Your task to perform on an android device: Clear the cart on amazon.com. Search for usb-a on amazon.com, select the first entry, add it to the cart, then select checkout. Image 0: 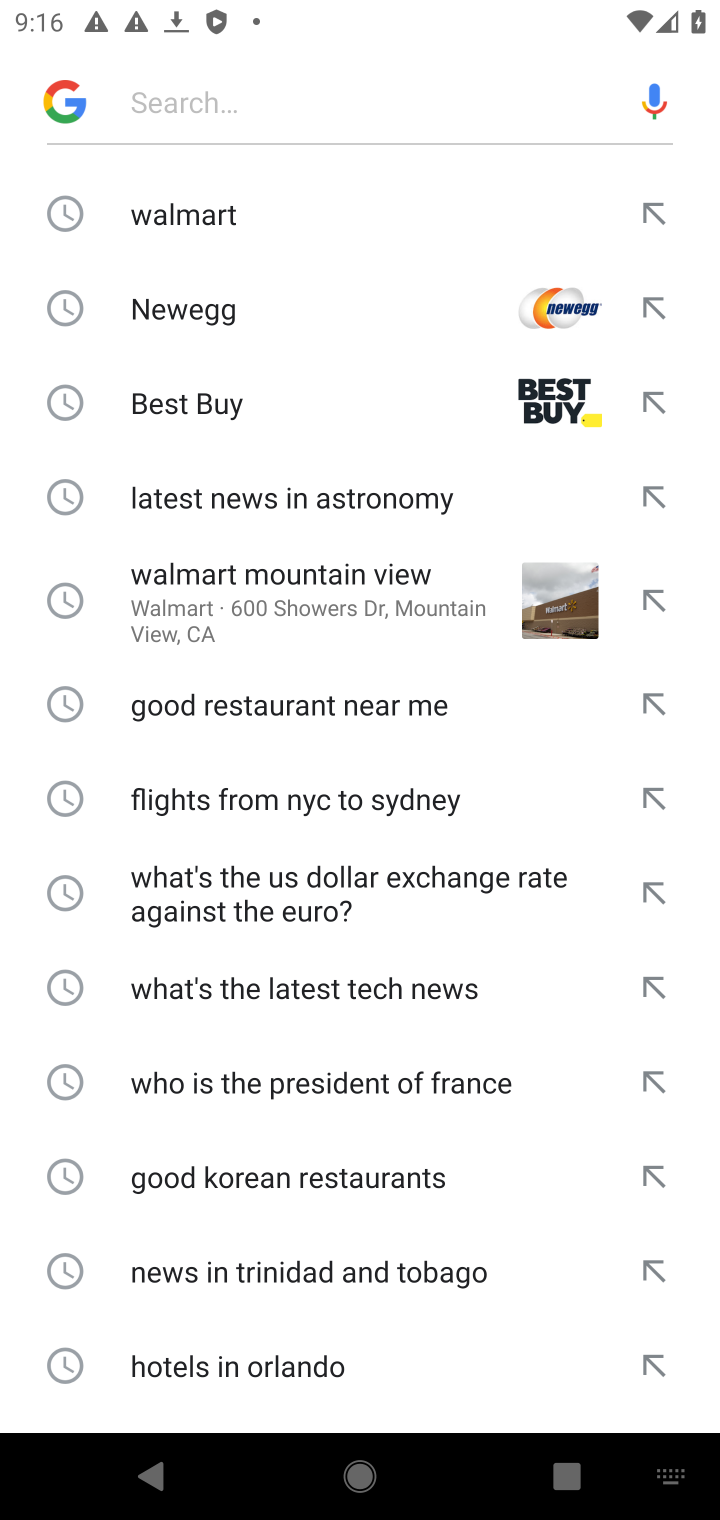
Step 0: press home button
Your task to perform on an android device: Clear the cart on amazon.com. Search for usb-a on amazon.com, select the first entry, add it to the cart, then select checkout. Image 1: 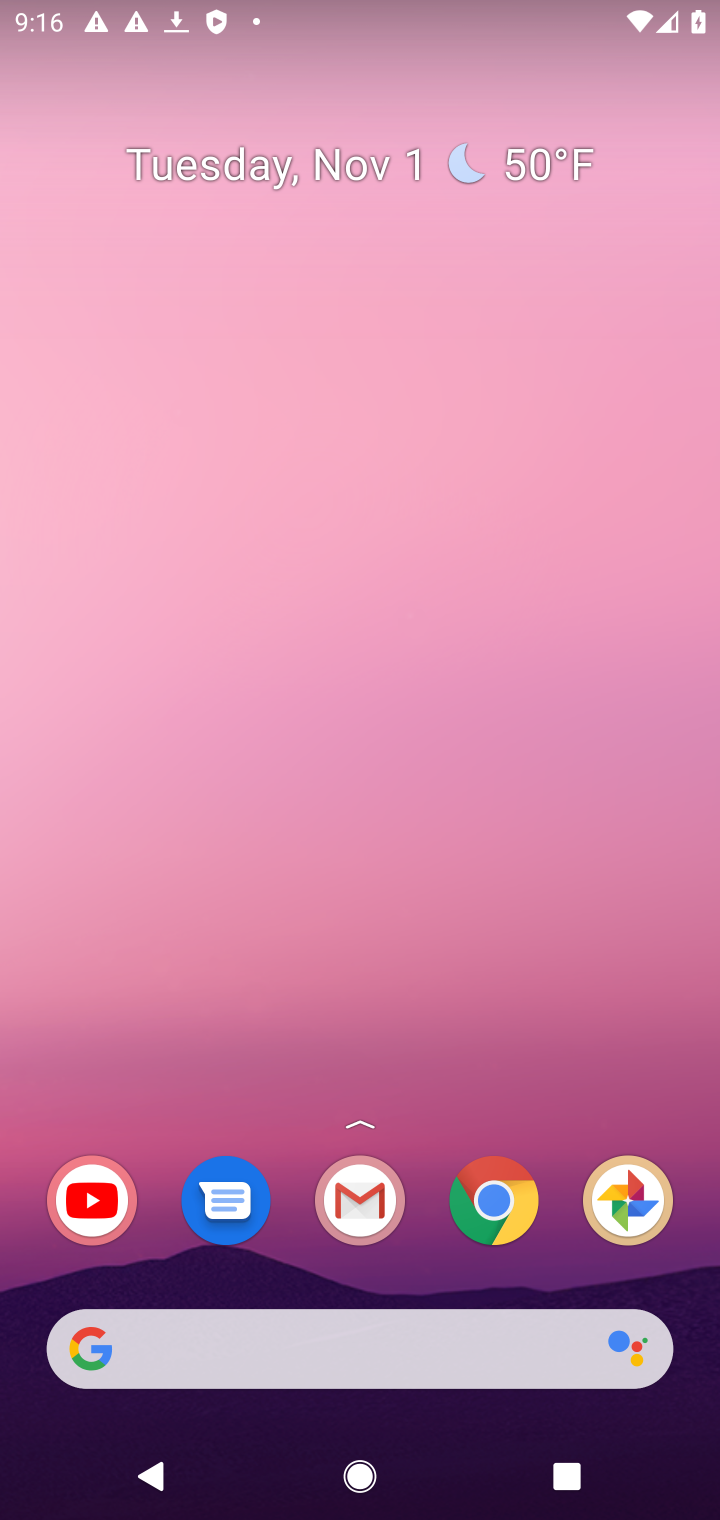
Step 1: click (277, 1354)
Your task to perform on an android device: Clear the cart on amazon.com. Search for usb-a on amazon.com, select the first entry, add it to the cart, then select checkout. Image 2: 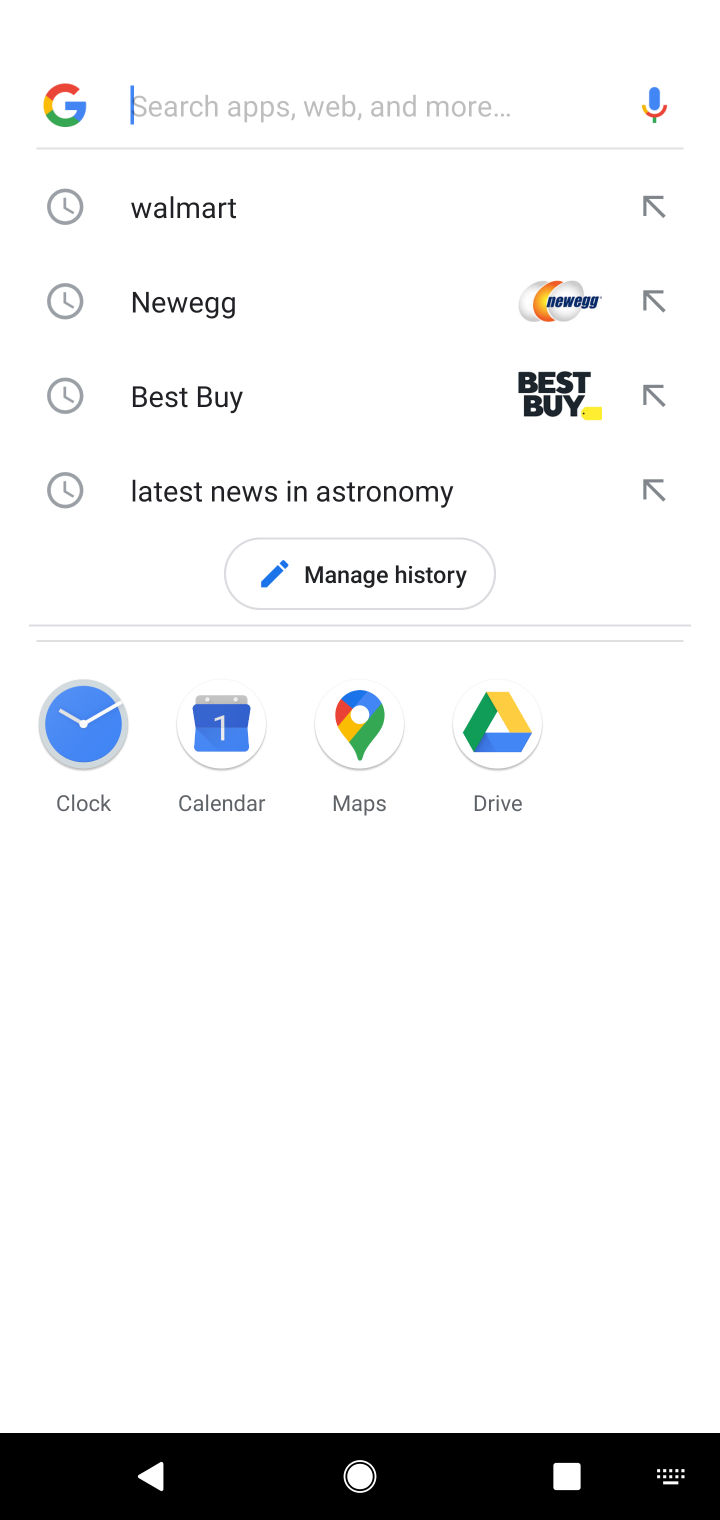
Step 2: type "amazon.com"
Your task to perform on an android device: Clear the cart on amazon.com. Search for usb-a on amazon.com, select the first entry, add it to the cart, then select checkout. Image 3: 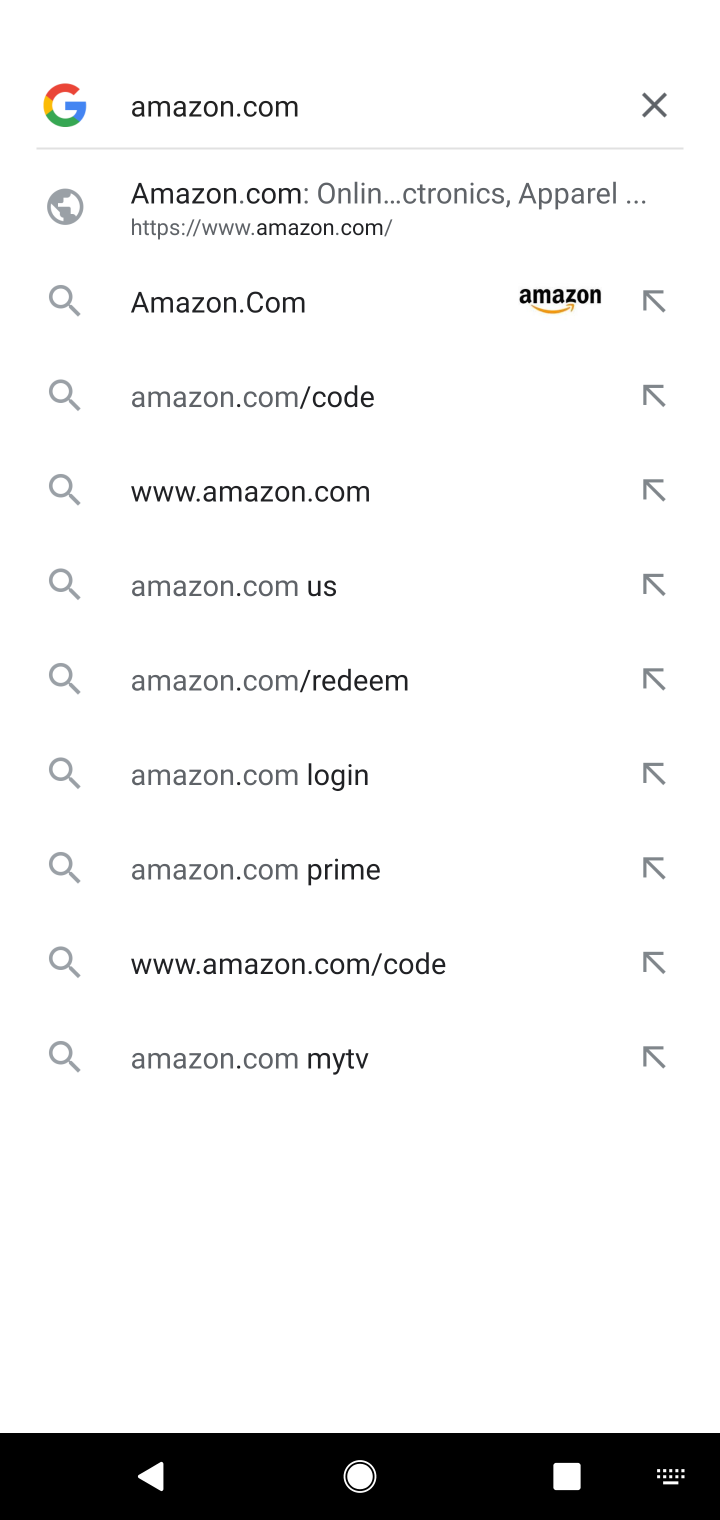
Step 3: click (297, 217)
Your task to perform on an android device: Clear the cart on amazon.com. Search for usb-a on amazon.com, select the first entry, add it to the cart, then select checkout. Image 4: 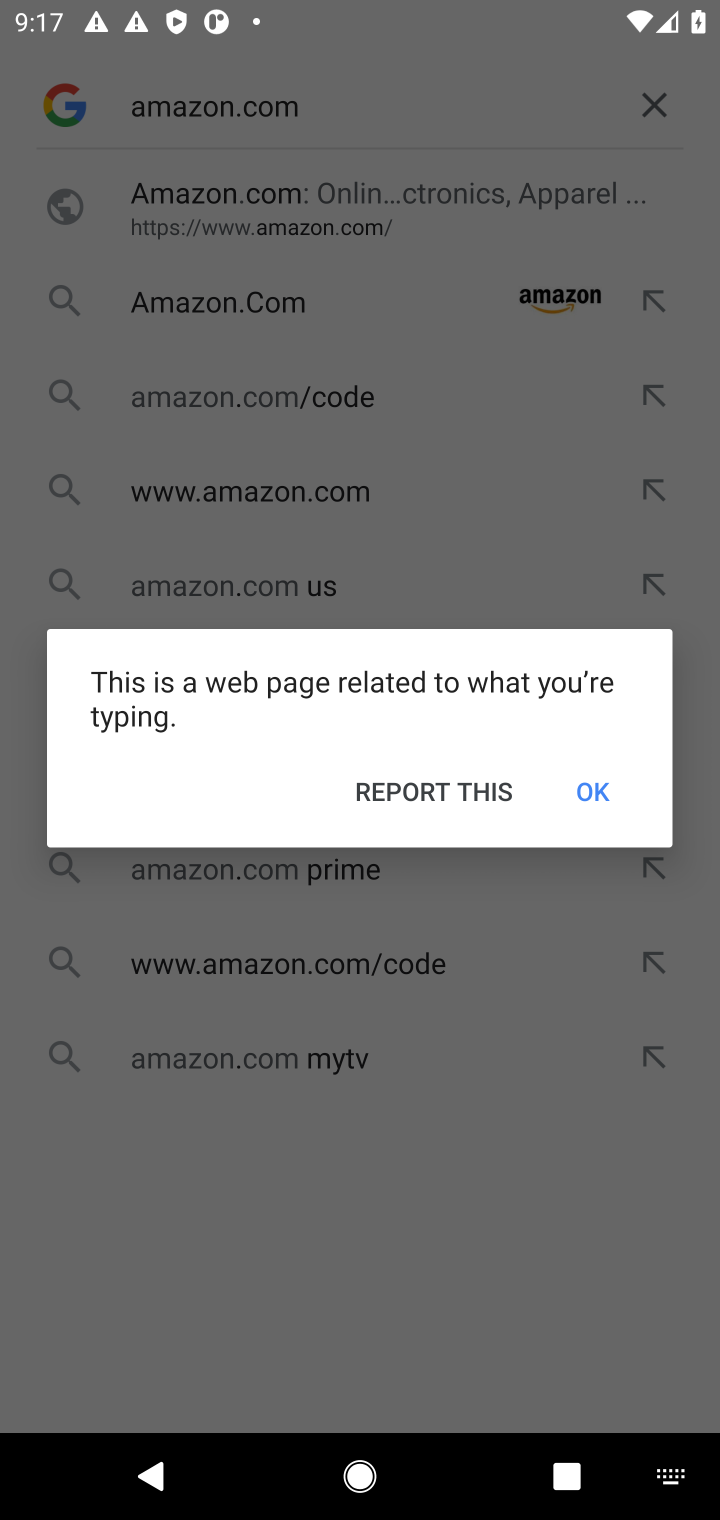
Step 4: click (578, 780)
Your task to perform on an android device: Clear the cart on amazon.com. Search for usb-a on amazon.com, select the first entry, add it to the cart, then select checkout. Image 5: 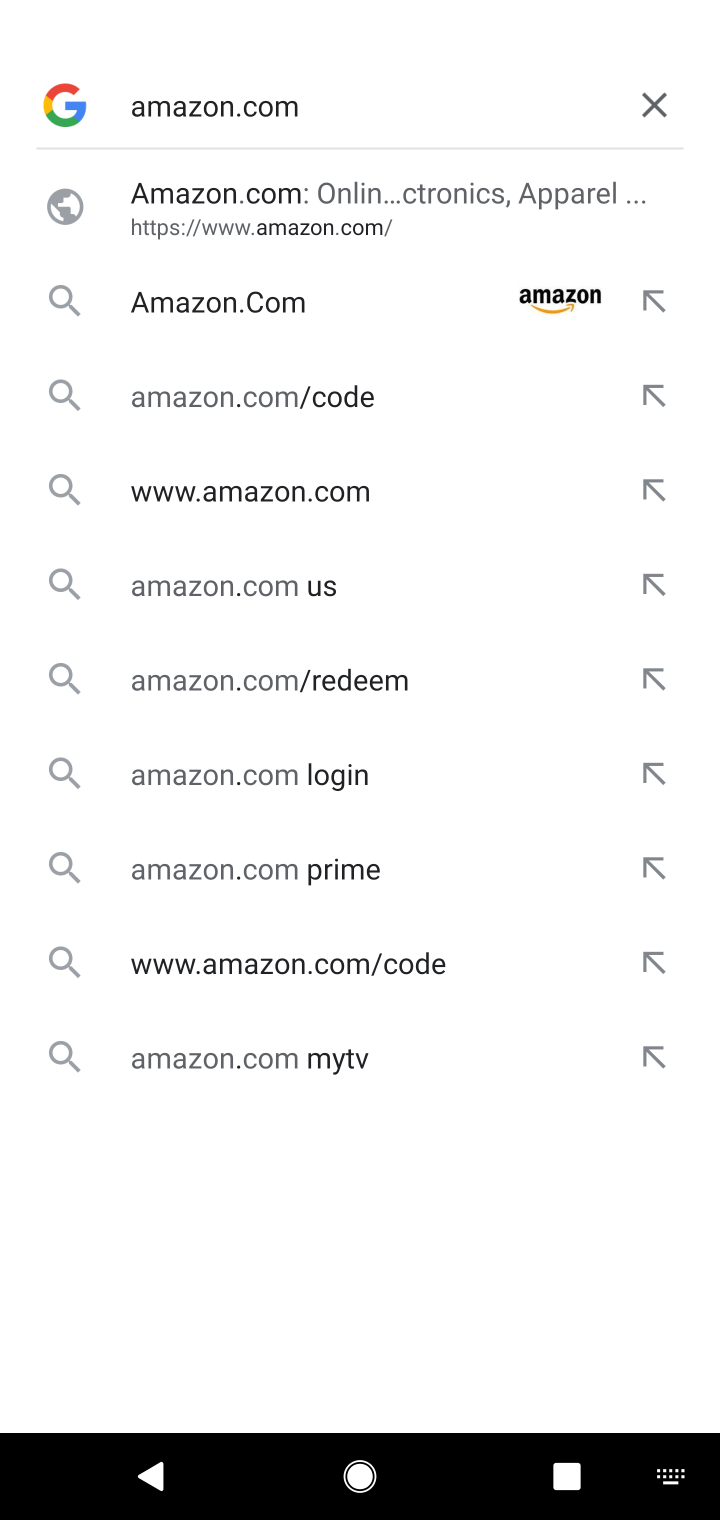
Step 5: click (368, 237)
Your task to perform on an android device: Clear the cart on amazon.com. Search for usb-a on amazon.com, select the first entry, add it to the cart, then select checkout. Image 6: 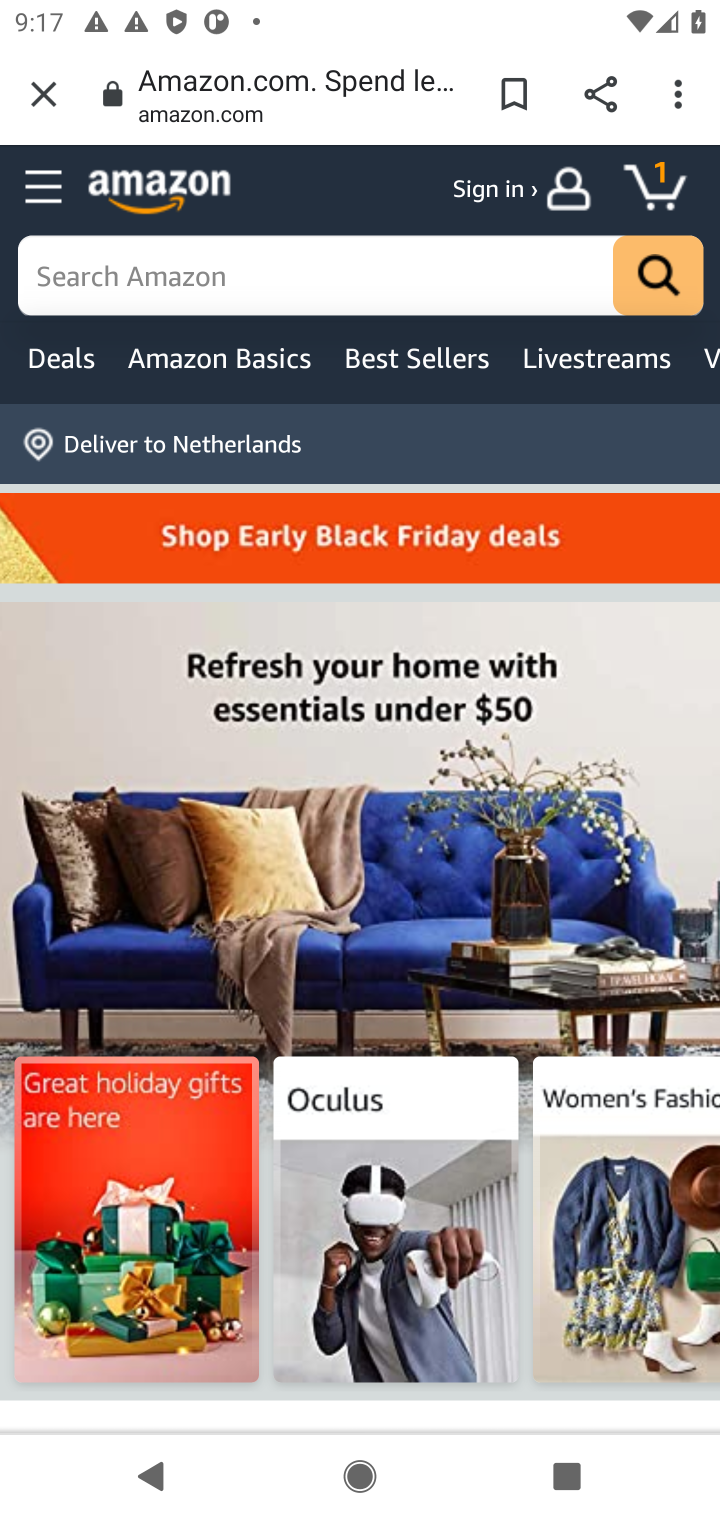
Step 6: click (333, 264)
Your task to perform on an android device: Clear the cart on amazon.com. Search for usb-a on amazon.com, select the first entry, add it to the cart, then select checkout. Image 7: 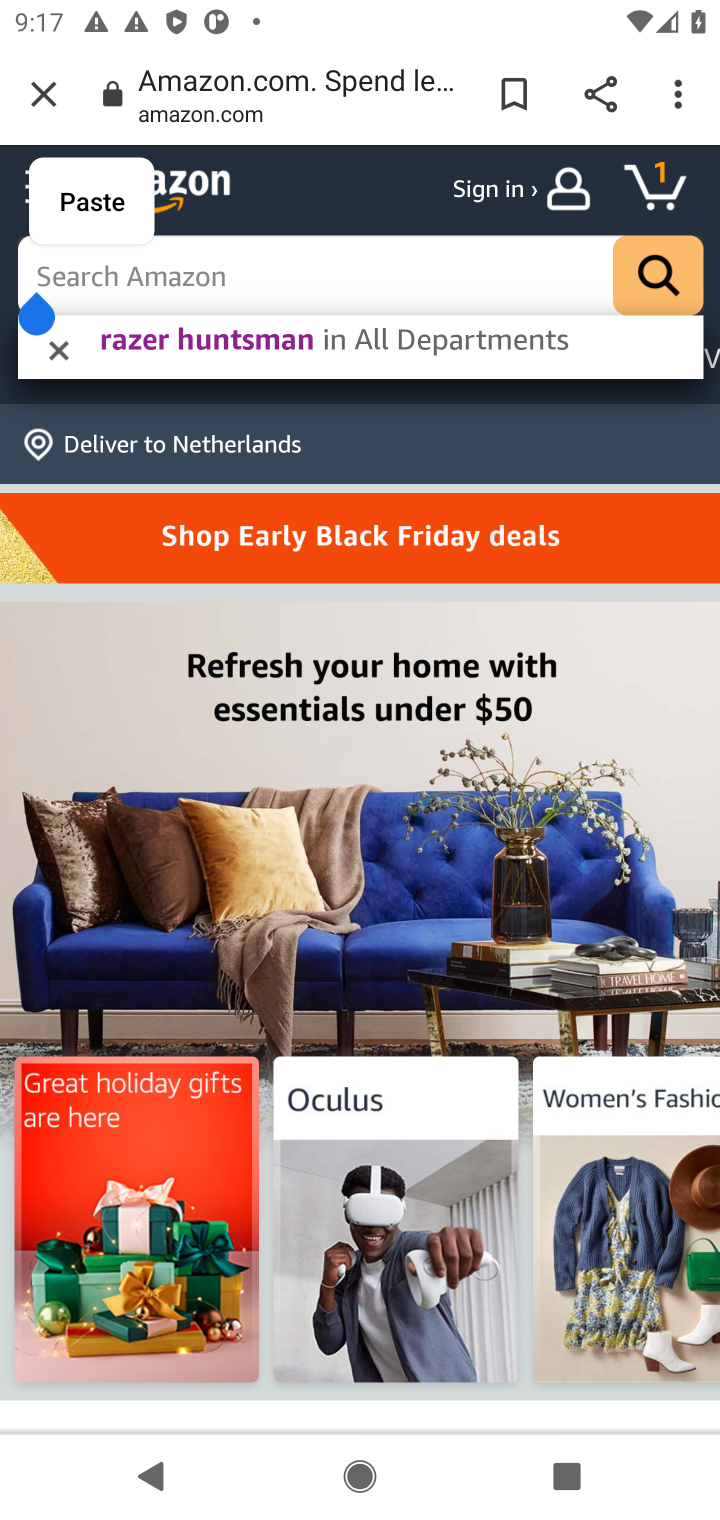
Step 7: type "usb-a"
Your task to perform on an android device: Clear the cart on amazon.com. Search for usb-a on amazon.com, select the first entry, add it to the cart, then select checkout. Image 8: 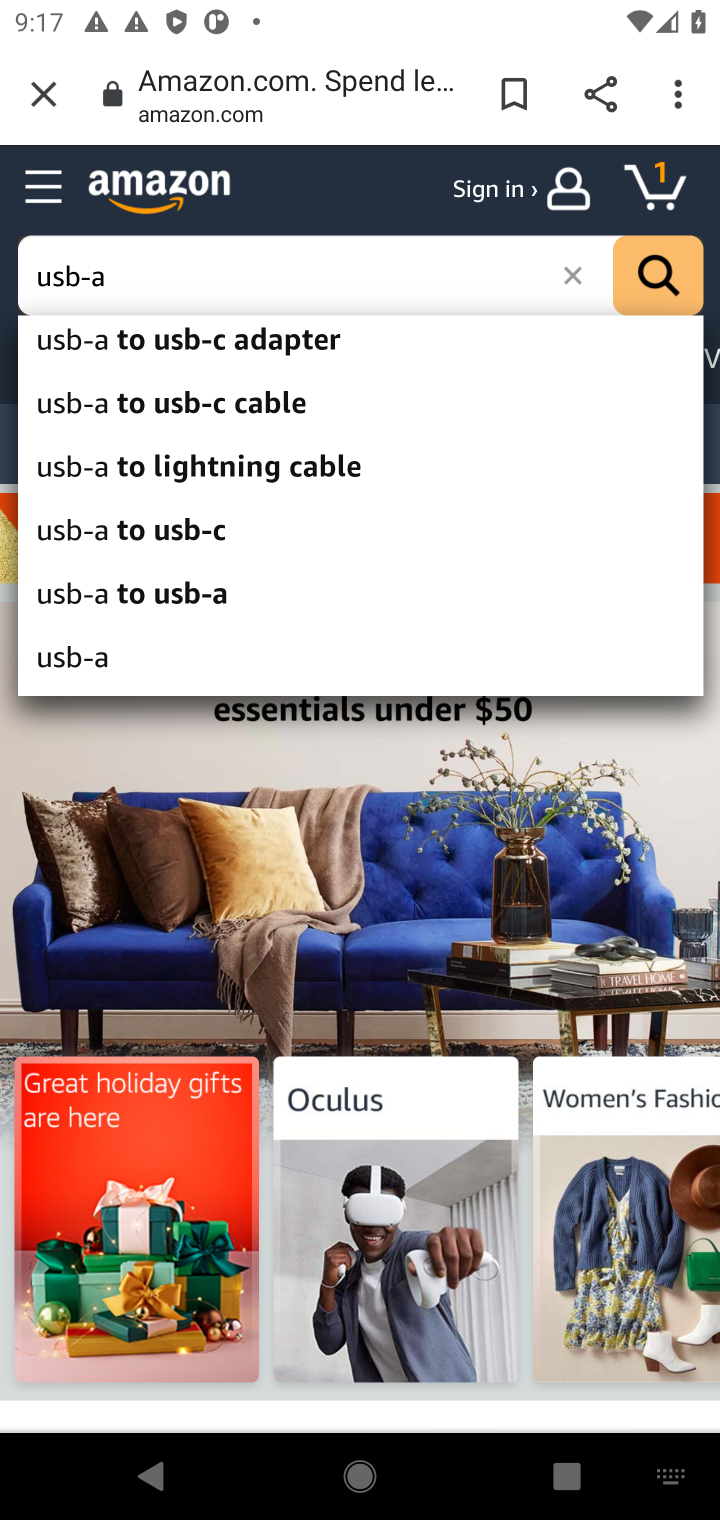
Step 8: click (58, 643)
Your task to perform on an android device: Clear the cart on amazon.com. Search for usb-a on amazon.com, select the first entry, add it to the cart, then select checkout. Image 9: 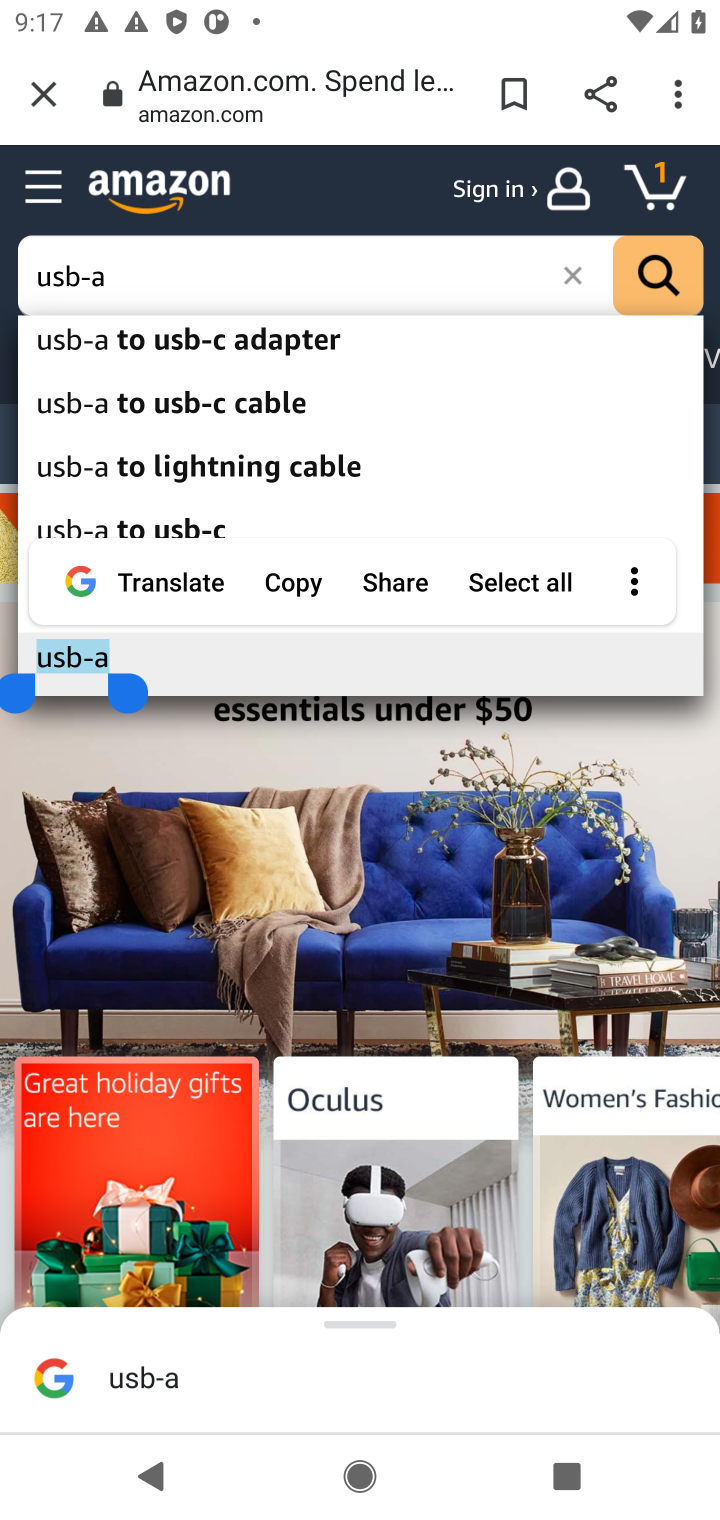
Step 9: click (639, 261)
Your task to perform on an android device: Clear the cart on amazon.com. Search for usb-a on amazon.com, select the first entry, add it to the cart, then select checkout. Image 10: 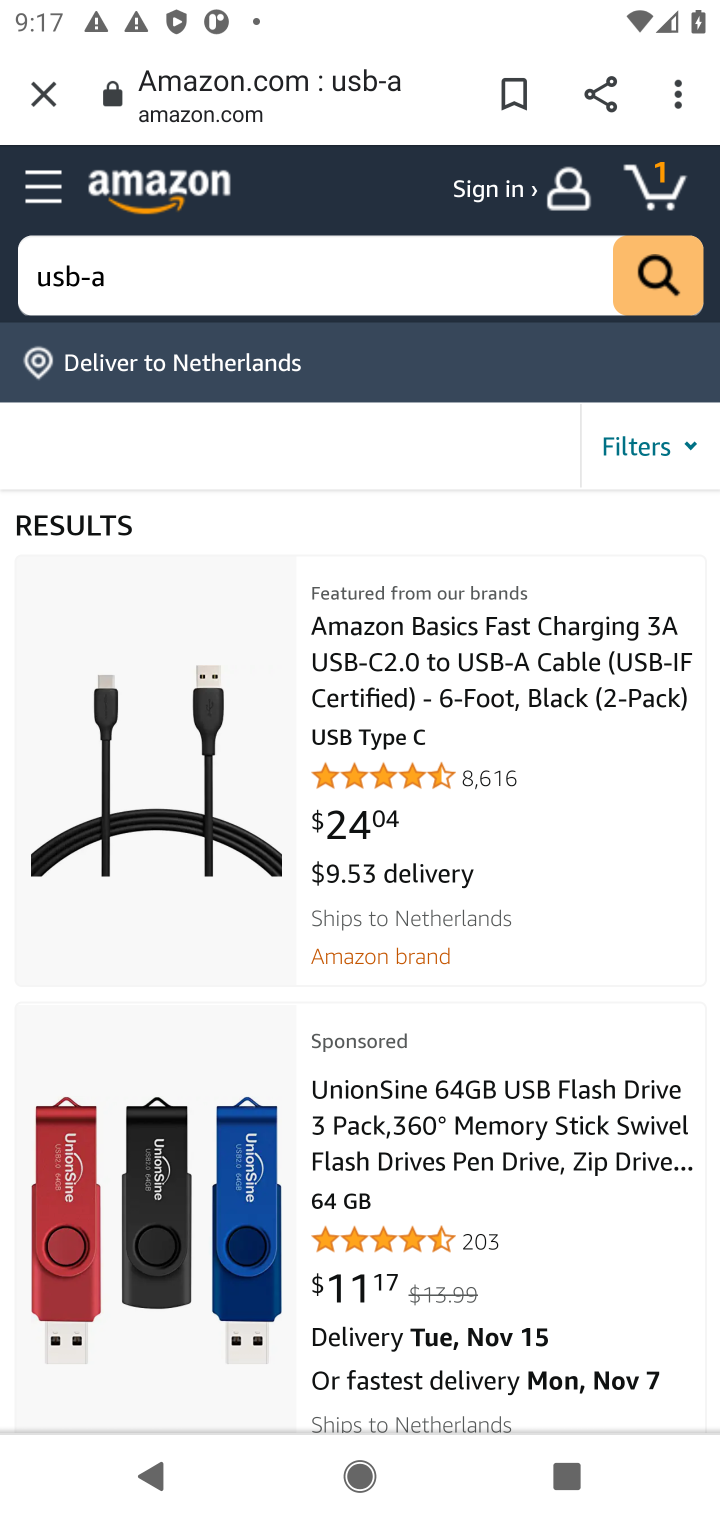
Step 10: click (455, 712)
Your task to perform on an android device: Clear the cart on amazon.com. Search for usb-a on amazon.com, select the first entry, add it to the cart, then select checkout. Image 11: 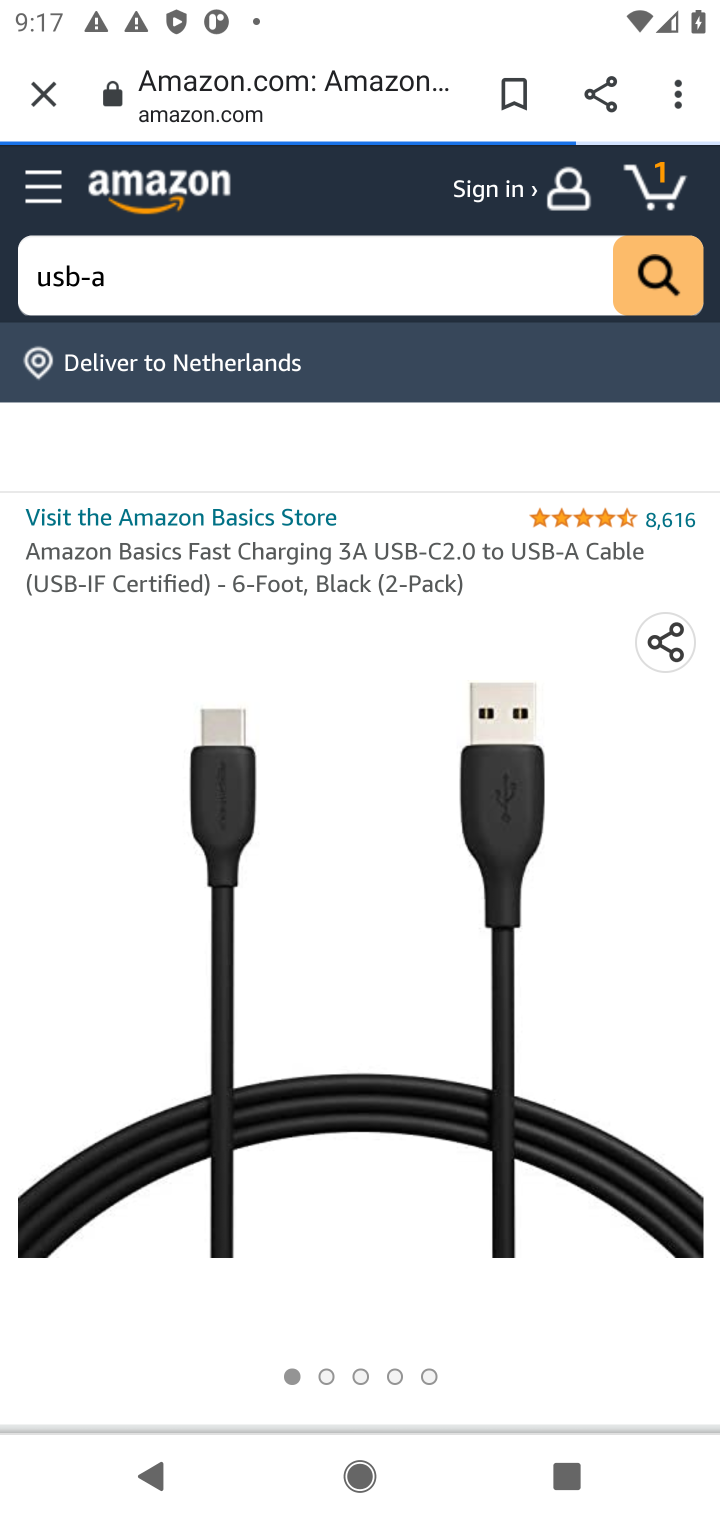
Step 11: drag from (427, 944) to (477, 206)
Your task to perform on an android device: Clear the cart on amazon.com. Search for usb-a on amazon.com, select the first entry, add it to the cart, then select checkout. Image 12: 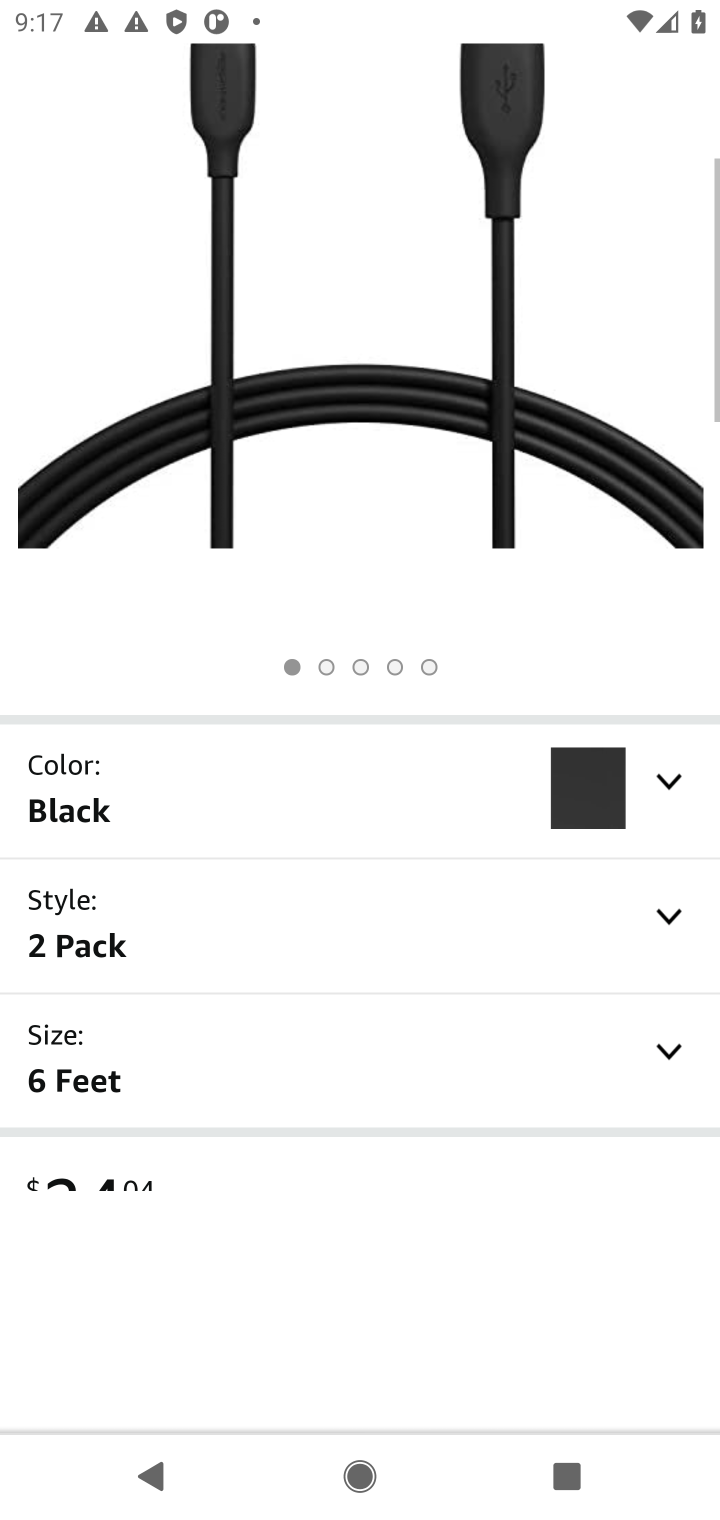
Step 12: drag from (402, 1014) to (426, 491)
Your task to perform on an android device: Clear the cart on amazon.com. Search for usb-a on amazon.com, select the first entry, add it to the cart, then select checkout. Image 13: 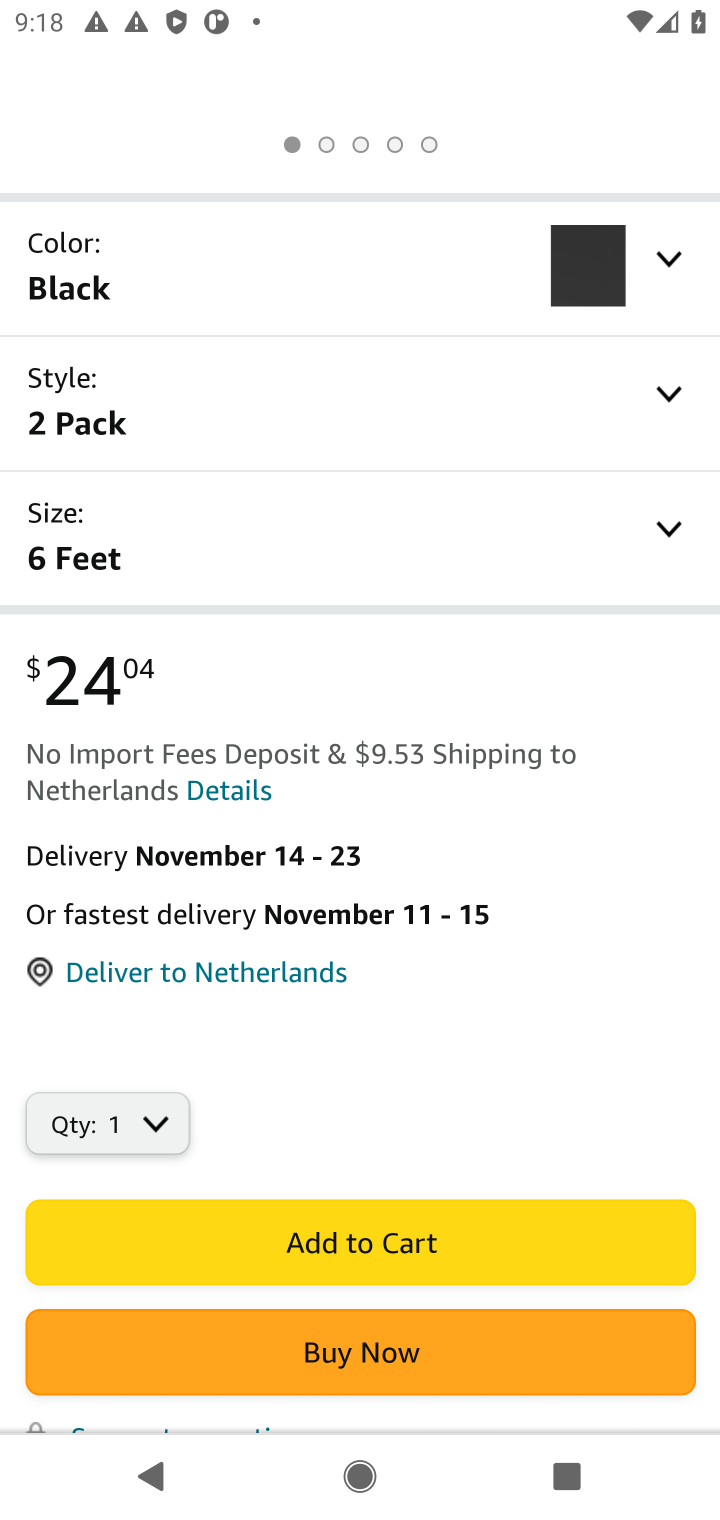
Step 13: click (405, 1219)
Your task to perform on an android device: Clear the cart on amazon.com. Search for usb-a on amazon.com, select the first entry, add it to the cart, then select checkout. Image 14: 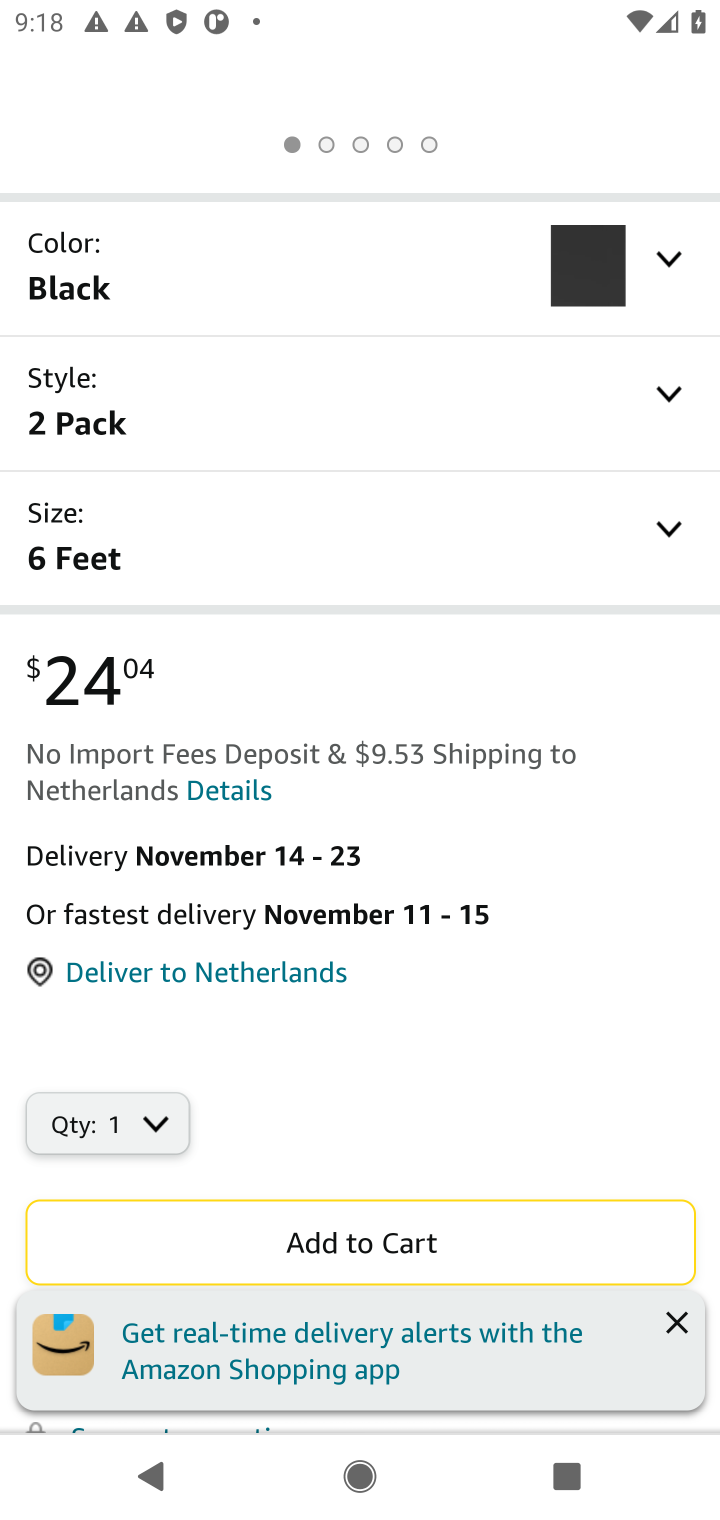
Step 14: click (500, 1124)
Your task to perform on an android device: Clear the cart on amazon.com. Search for usb-a on amazon.com, select the first entry, add it to the cart, then select checkout. Image 15: 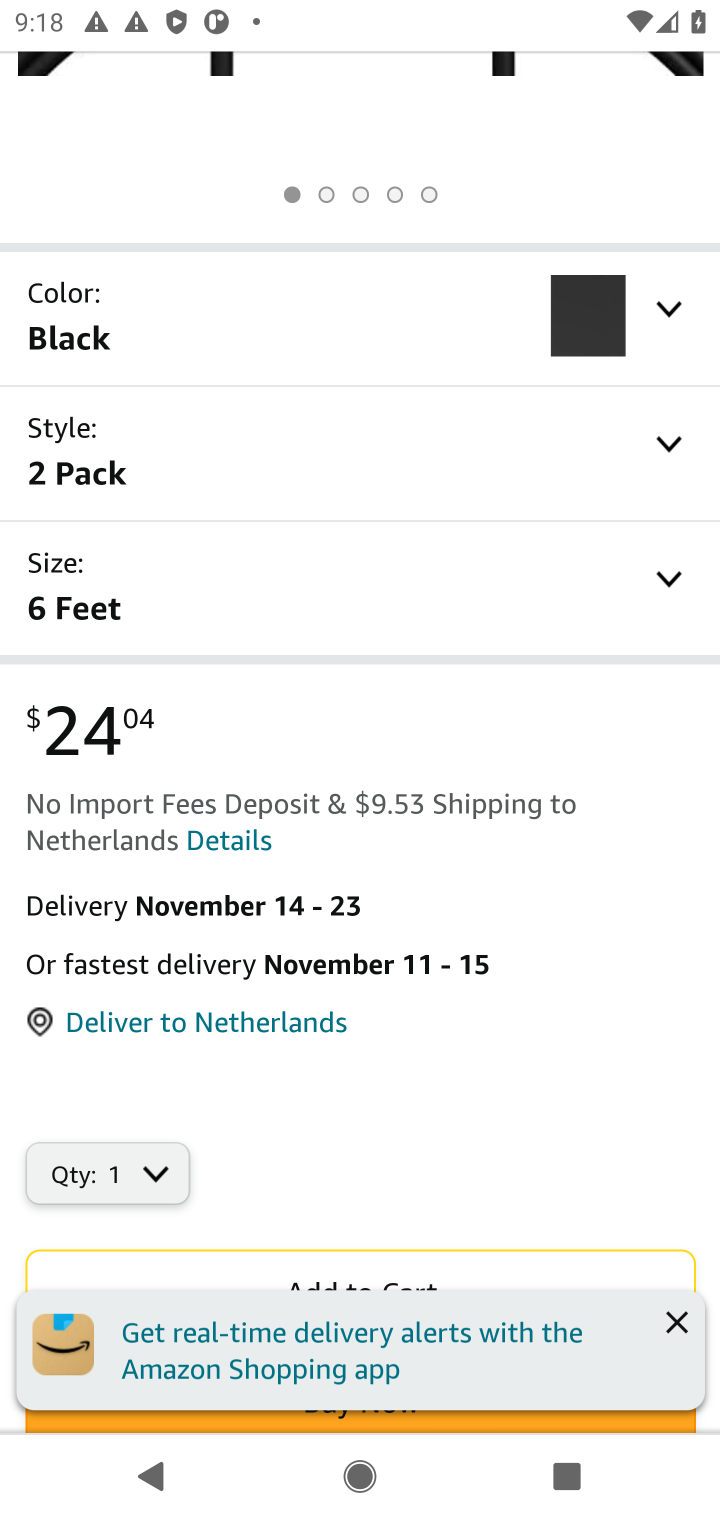
Step 15: drag from (447, 549) to (464, 1195)
Your task to perform on an android device: Clear the cart on amazon.com. Search for usb-a on amazon.com, select the first entry, add it to the cart, then select checkout. Image 16: 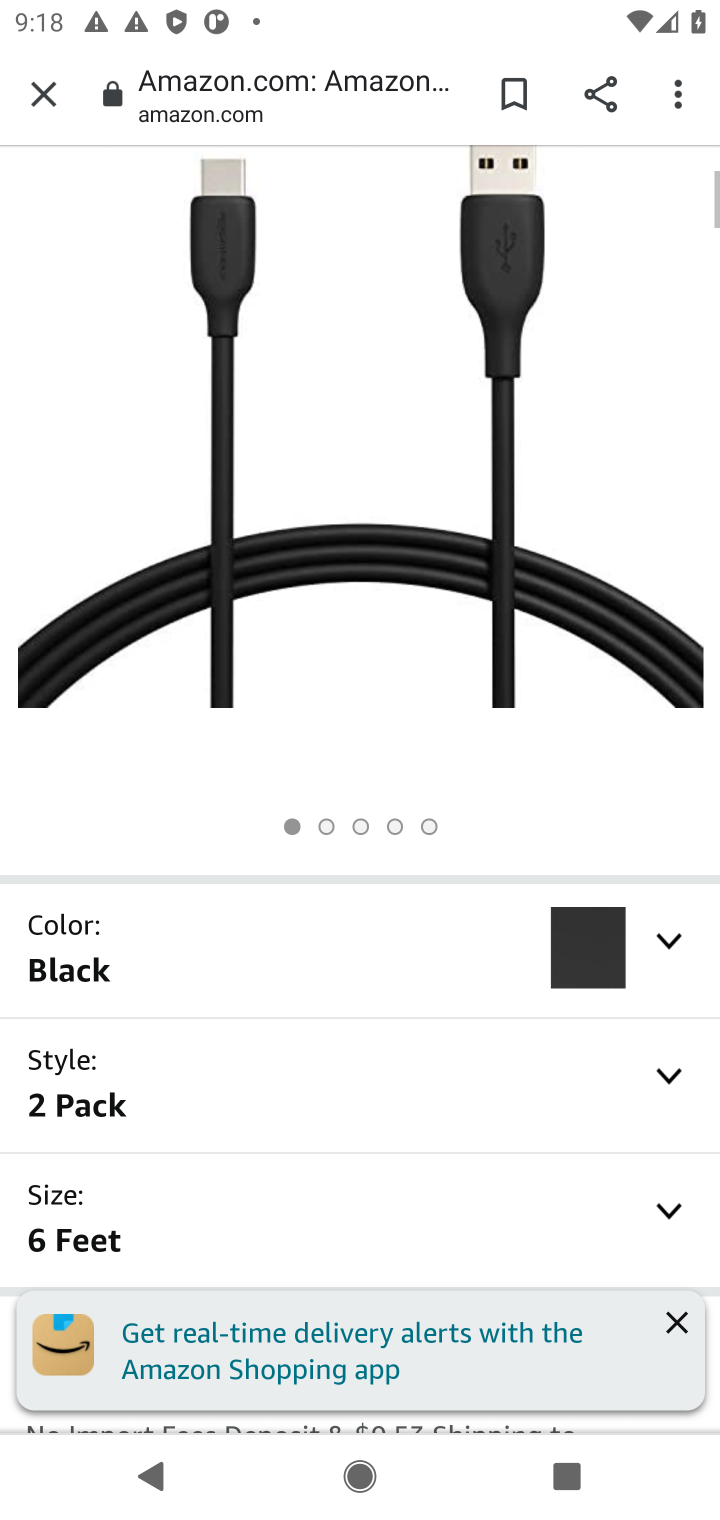
Step 16: drag from (434, 585) to (454, 1274)
Your task to perform on an android device: Clear the cart on amazon.com. Search for usb-a on amazon.com, select the first entry, add it to the cart, then select checkout. Image 17: 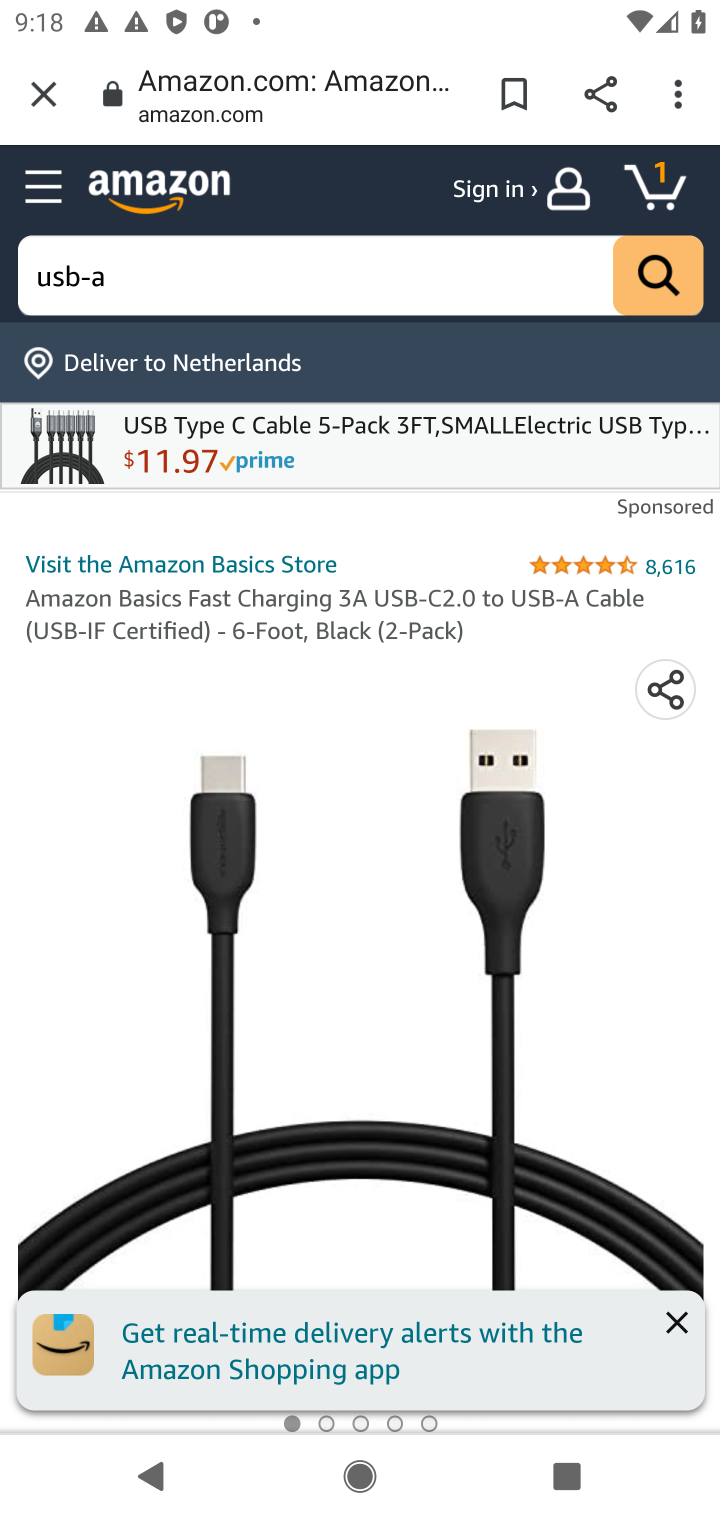
Step 17: click (649, 192)
Your task to perform on an android device: Clear the cart on amazon.com. Search for usb-a on amazon.com, select the first entry, add it to the cart, then select checkout. Image 18: 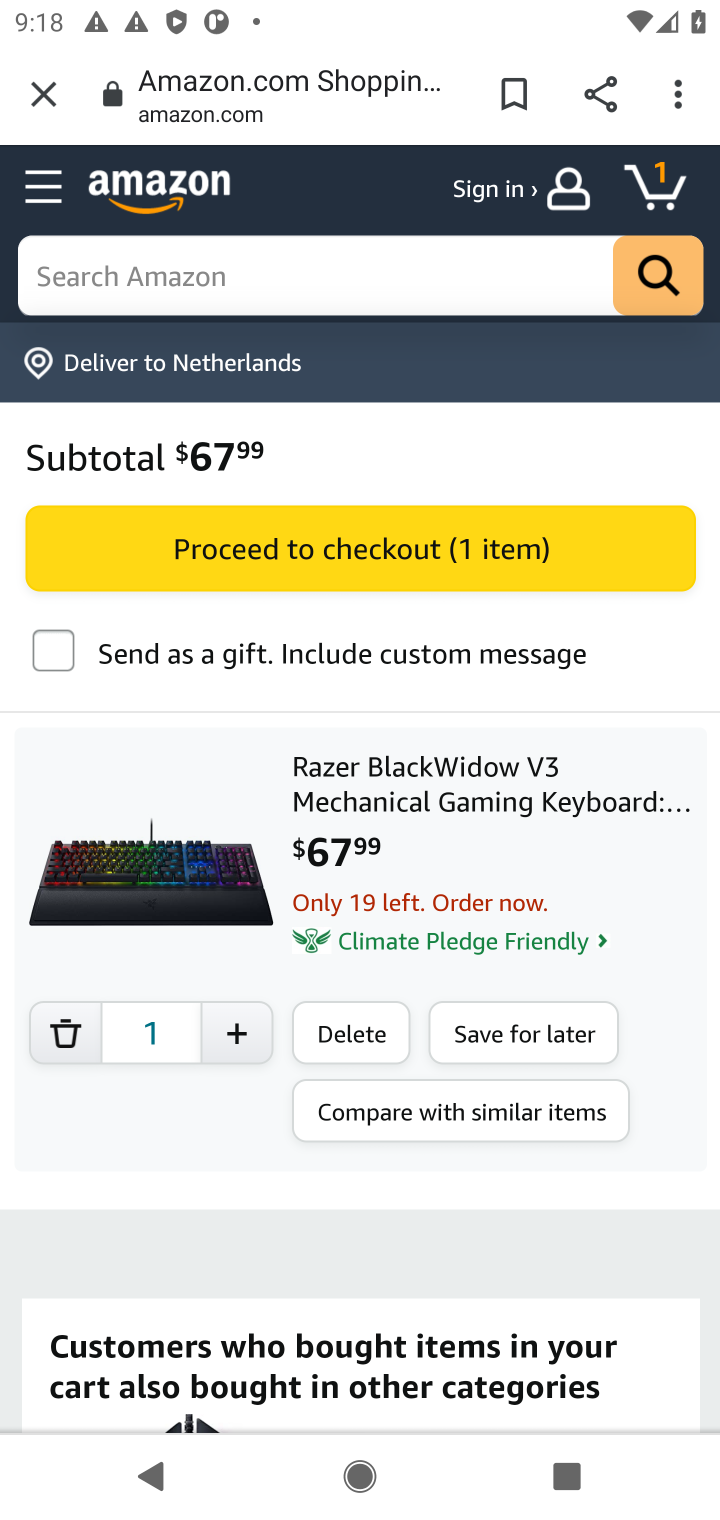
Step 18: click (426, 561)
Your task to perform on an android device: Clear the cart on amazon.com. Search for usb-a on amazon.com, select the first entry, add it to the cart, then select checkout. Image 19: 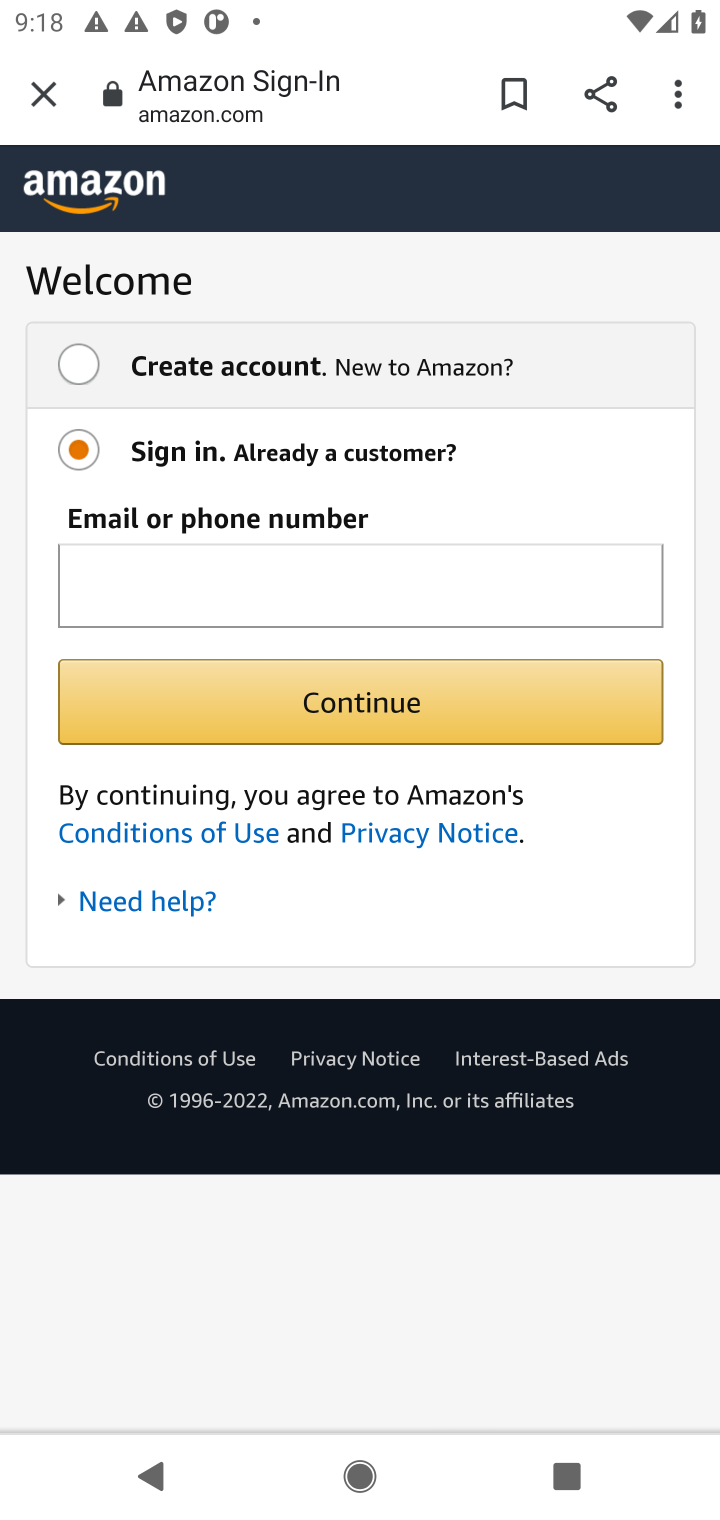
Step 19: task complete